Your task to perform on an android device: change the clock style Image 0: 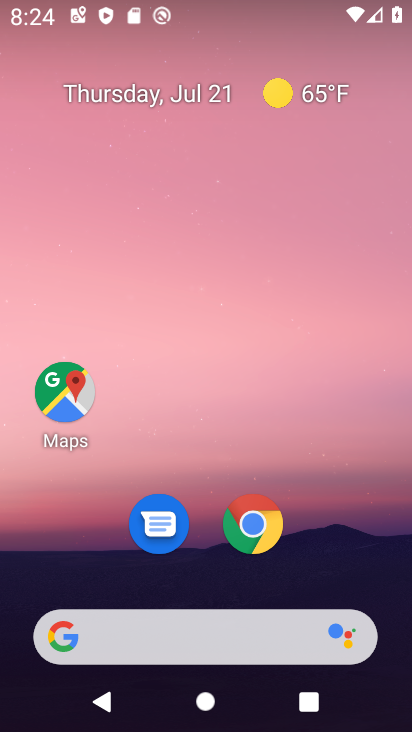
Step 0: drag from (171, 616) to (166, 65)
Your task to perform on an android device: change the clock style Image 1: 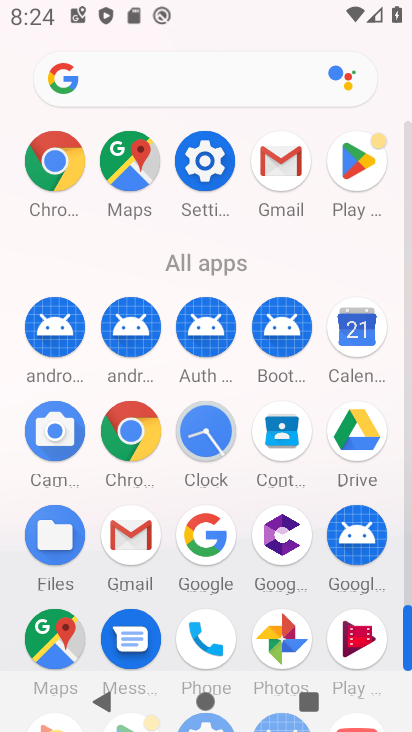
Step 1: click (208, 419)
Your task to perform on an android device: change the clock style Image 2: 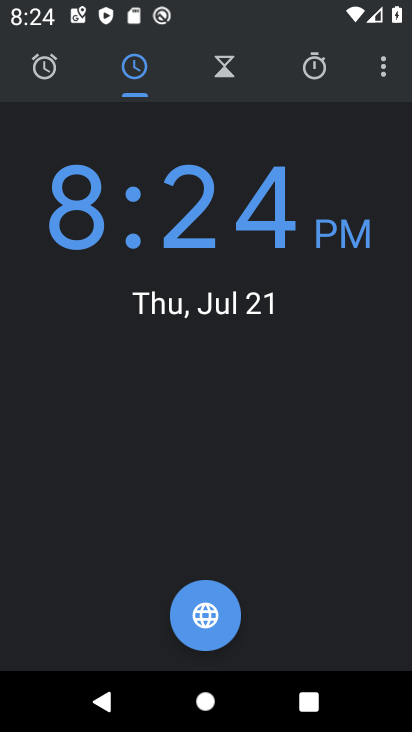
Step 2: click (382, 69)
Your task to perform on an android device: change the clock style Image 3: 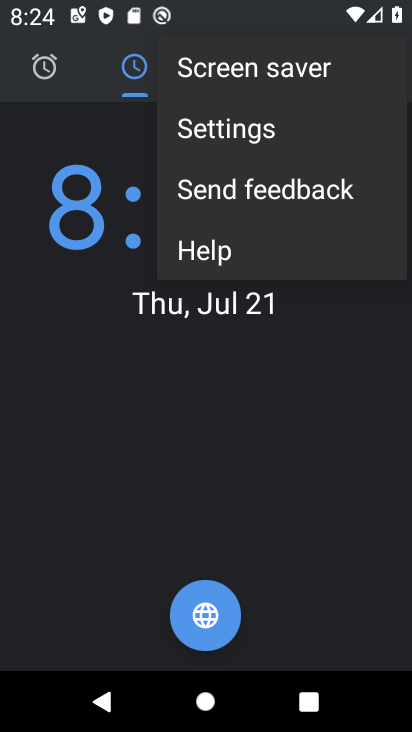
Step 3: click (284, 125)
Your task to perform on an android device: change the clock style Image 4: 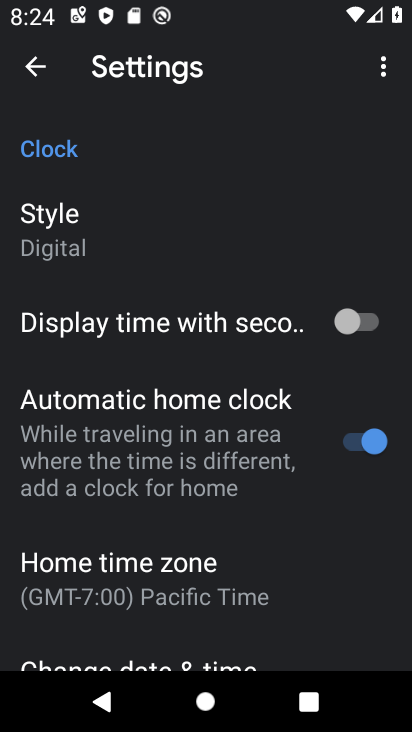
Step 4: click (159, 234)
Your task to perform on an android device: change the clock style Image 5: 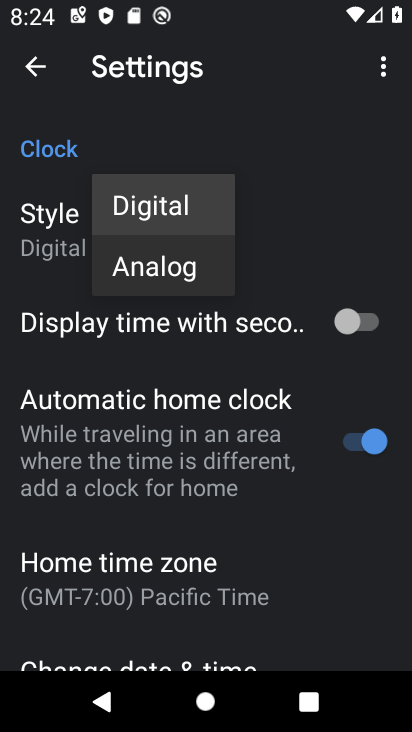
Step 5: click (142, 263)
Your task to perform on an android device: change the clock style Image 6: 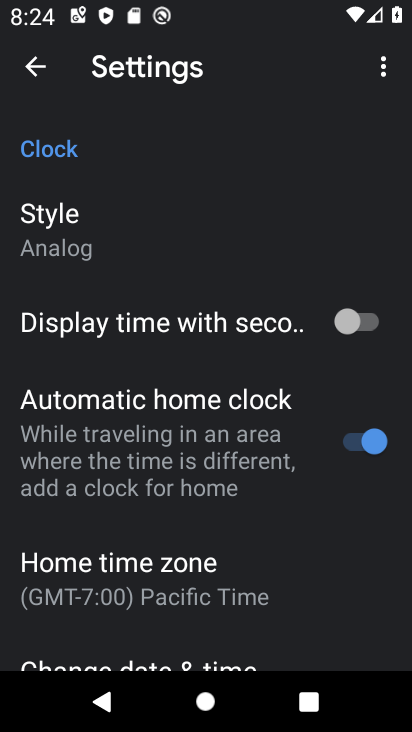
Step 6: task complete